Your task to perform on an android device: turn on priority inbox in the gmail app Image 0: 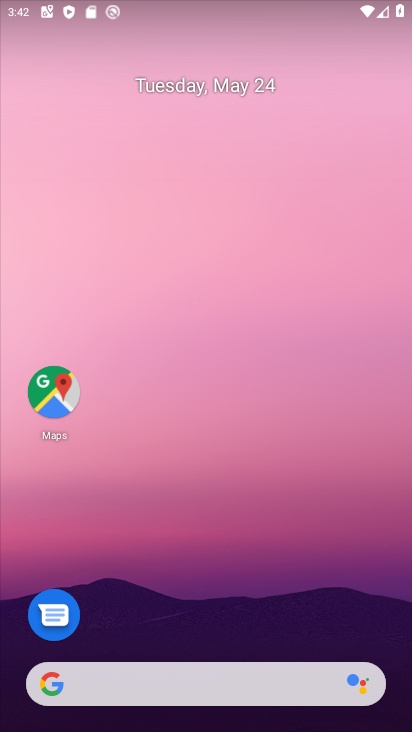
Step 0: drag from (180, 619) to (254, 99)
Your task to perform on an android device: turn on priority inbox in the gmail app Image 1: 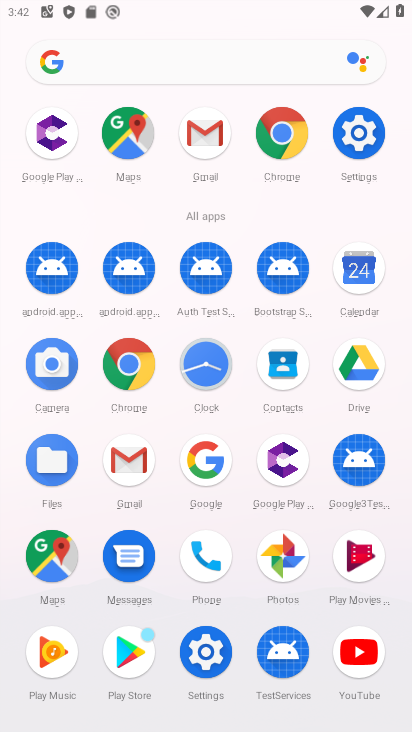
Step 1: click (119, 454)
Your task to perform on an android device: turn on priority inbox in the gmail app Image 2: 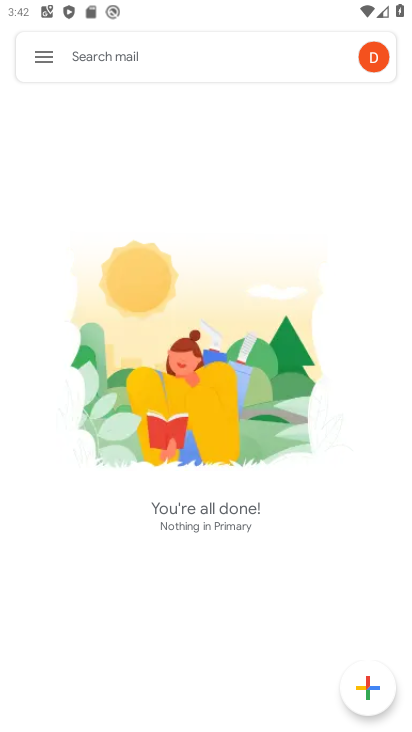
Step 2: click (53, 59)
Your task to perform on an android device: turn on priority inbox in the gmail app Image 3: 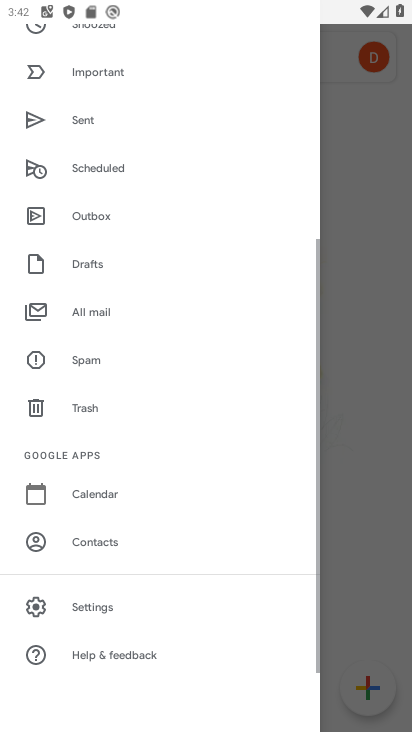
Step 3: click (110, 610)
Your task to perform on an android device: turn on priority inbox in the gmail app Image 4: 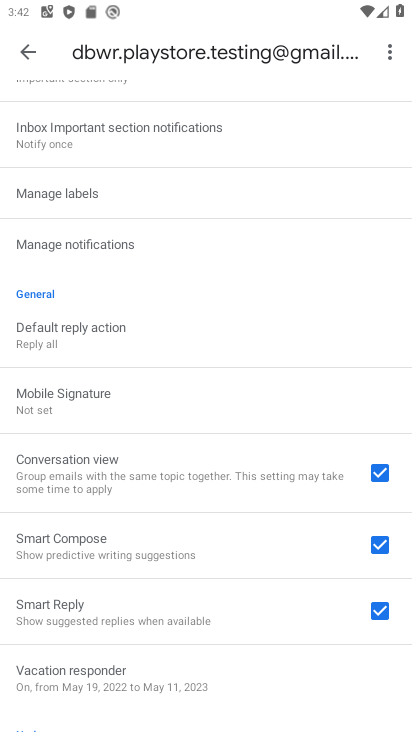
Step 4: task complete